Your task to perform on an android device: turn off smart reply in the gmail app Image 0: 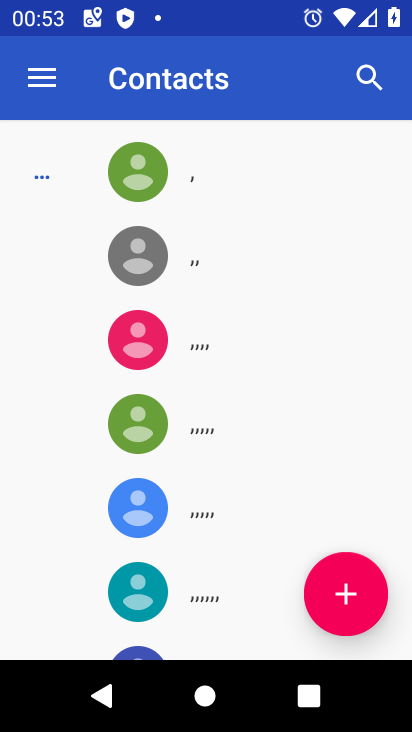
Step 0: press home button
Your task to perform on an android device: turn off smart reply in the gmail app Image 1: 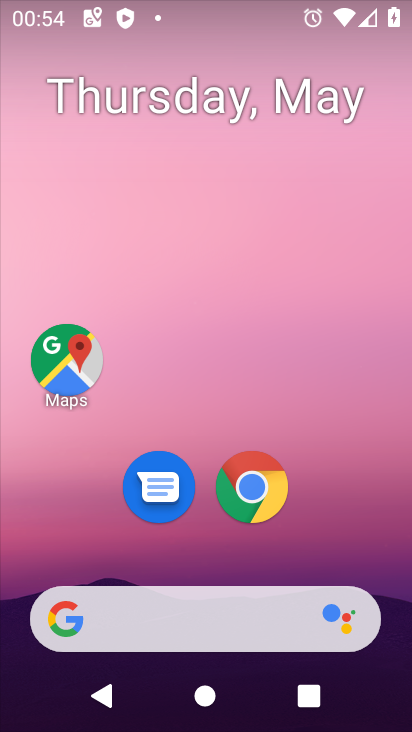
Step 1: drag from (363, 566) to (360, 0)
Your task to perform on an android device: turn off smart reply in the gmail app Image 2: 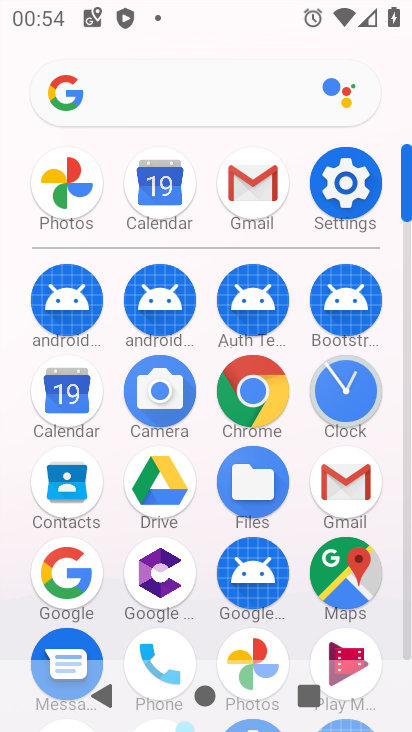
Step 2: click (242, 191)
Your task to perform on an android device: turn off smart reply in the gmail app Image 3: 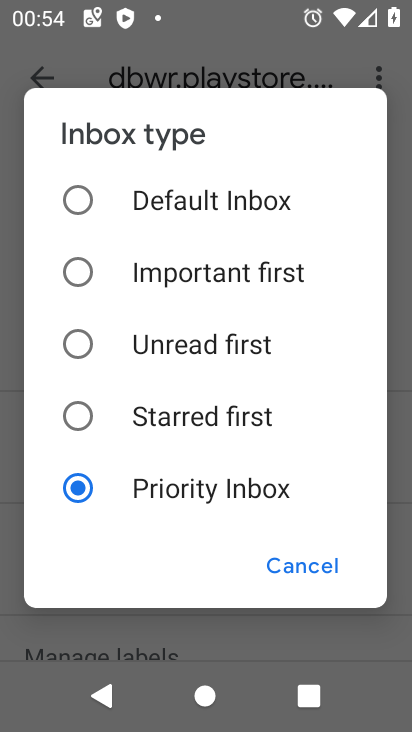
Step 3: click (305, 563)
Your task to perform on an android device: turn off smart reply in the gmail app Image 4: 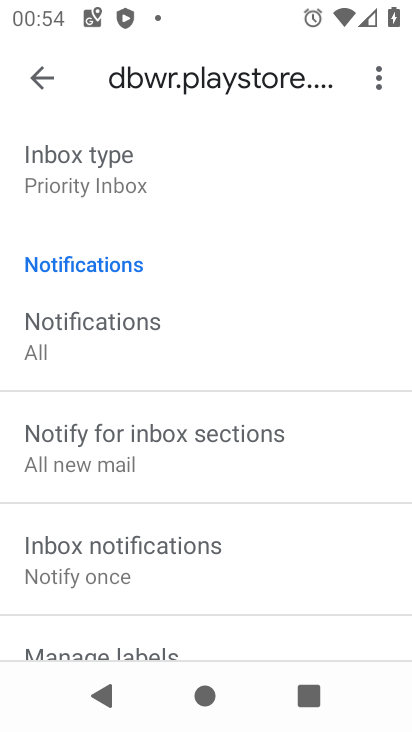
Step 4: drag from (224, 524) to (192, 146)
Your task to perform on an android device: turn off smart reply in the gmail app Image 5: 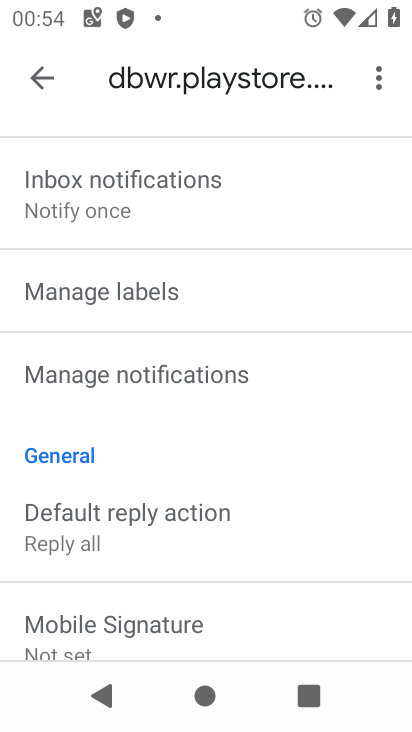
Step 5: drag from (221, 539) to (172, 115)
Your task to perform on an android device: turn off smart reply in the gmail app Image 6: 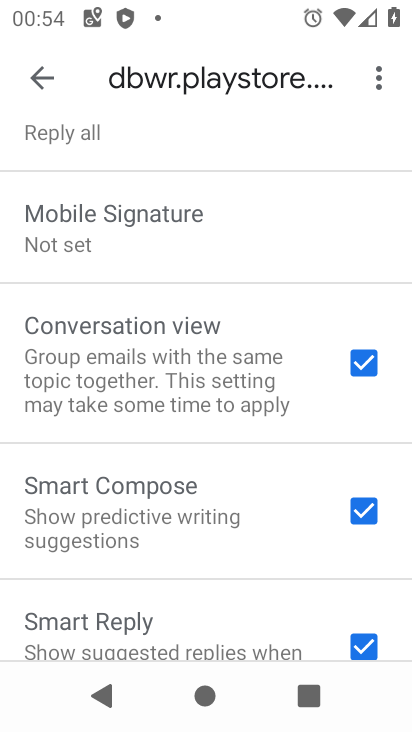
Step 6: drag from (188, 507) to (165, 230)
Your task to perform on an android device: turn off smart reply in the gmail app Image 7: 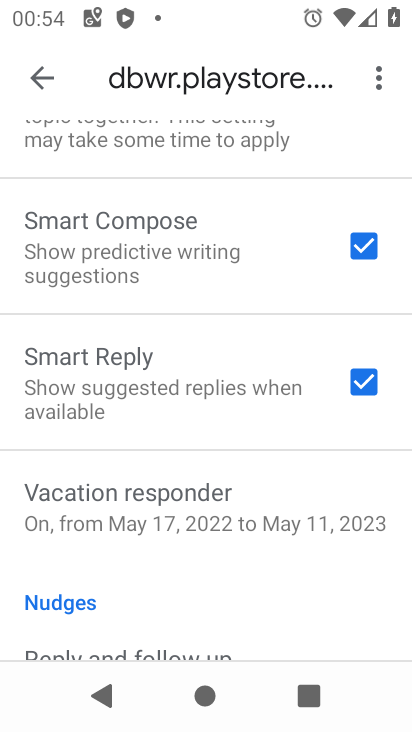
Step 7: click (349, 383)
Your task to perform on an android device: turn off smart reply in the gmail app Image 8: 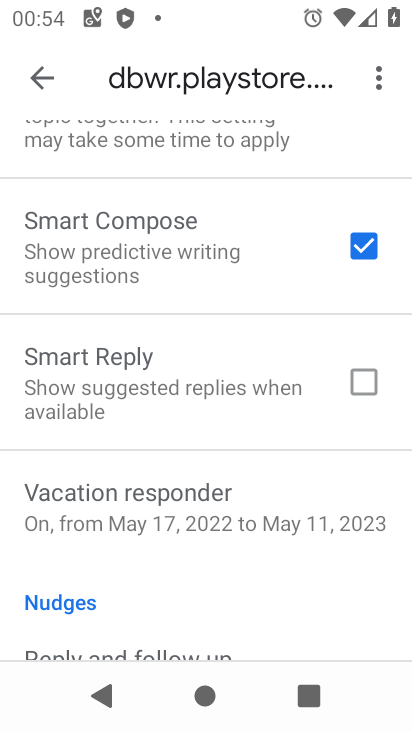
Step 8: task complete